Your task to perform on an android device: Go to Maps Image 0: 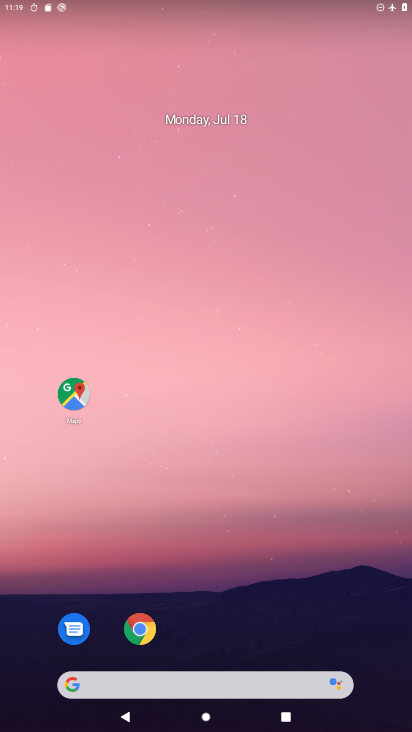
Step 0: drag from (130, 217) to (118, 3)
Your task to perform on an android device: Go to Maps Image 1: 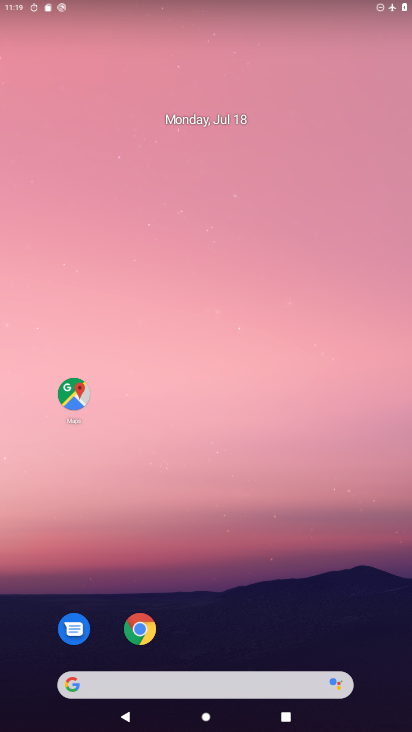
Step 1: drag from (300, 553) to (219, 15)
Your task to perform on an android device: Go to Maps Image 2: 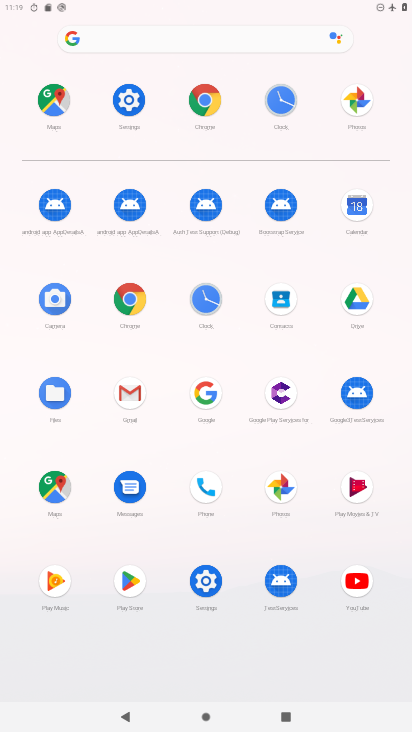
Step 2: click (50, 106)
Your task to perform on an android device: Go to Maps Image 3: 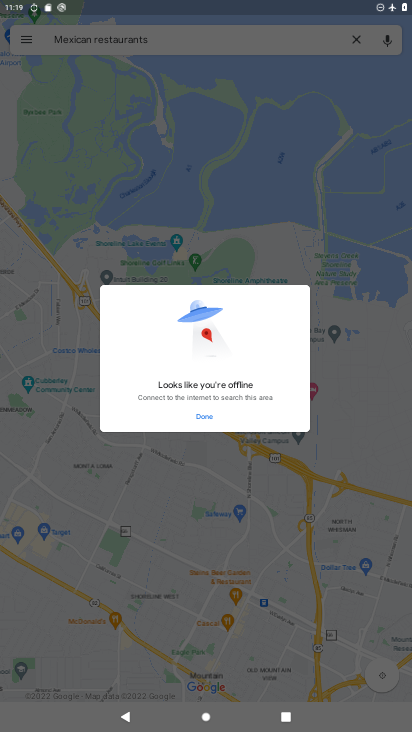
Step 3: task complete